Your task to perform on an android device: Play the last video I watched on Youtube Image 0: 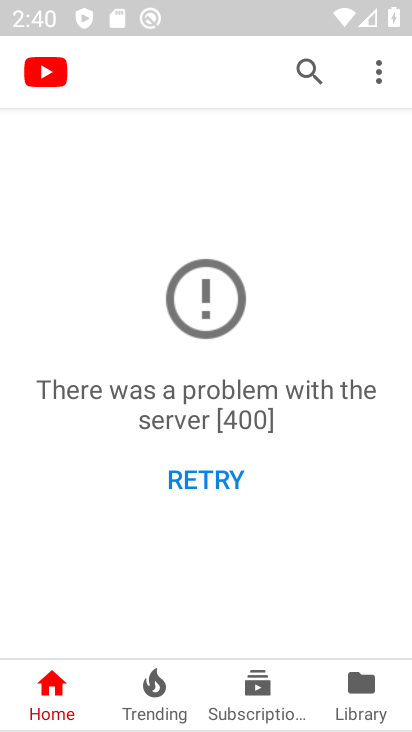
Step 0: click (368, 696)
Your task to perform on an android device: Play the last video I watched on Youtube Image 1: 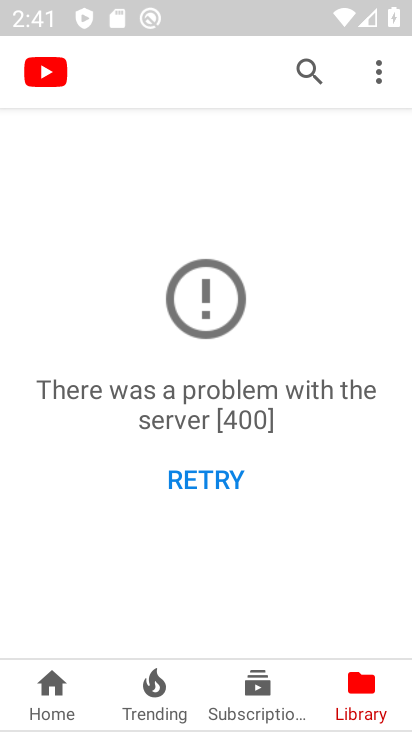
Step 1: task complete